Your task to perform on an android device: see sites visited before in the chrome app Image 0: 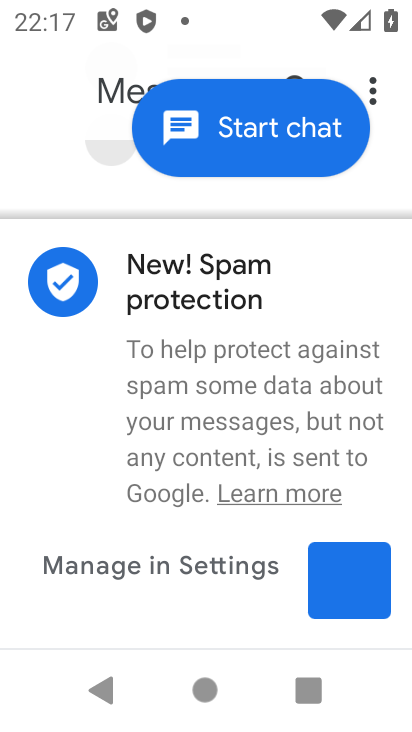
Step 0: press home button
Your task to perform on an android device: see sites visited before in the chrome app Image 1: 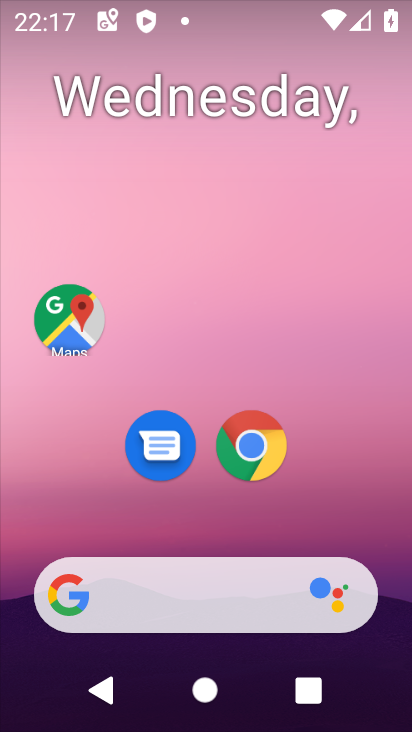
Step 1: click (244, 444)
Your task to perform on an android device: see sites visited before in the chrome app Image 2: 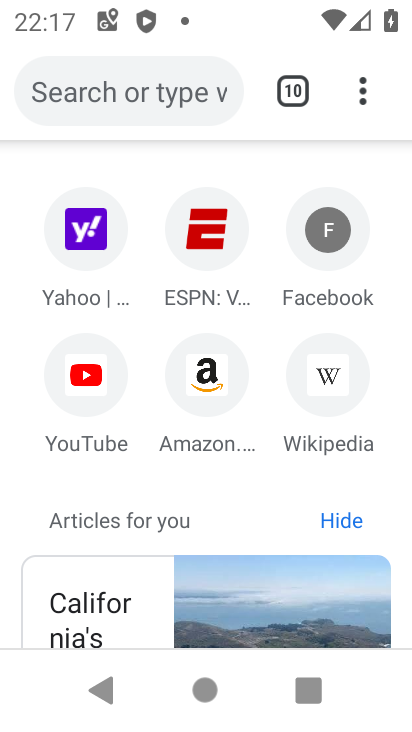
Step 2: click (368, 102)
Your task to perform on an android device: see sites visited before in the chrome app Image 3: 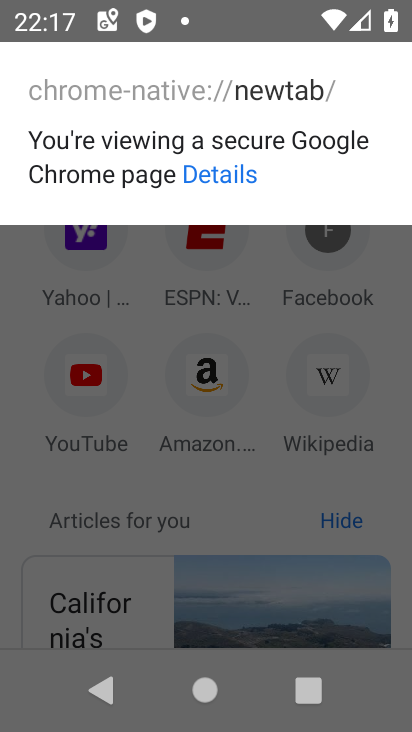
Step 3: press back button
Your task to perform on an android device: see sites visited before in the chrome app Image 4: 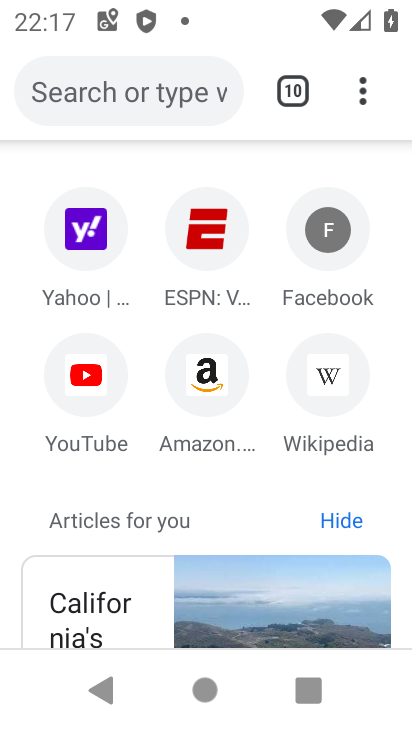
Step 4: click (393, 90)
Your task to perform on an android device: see sites visited before in the chrome app Image 5: 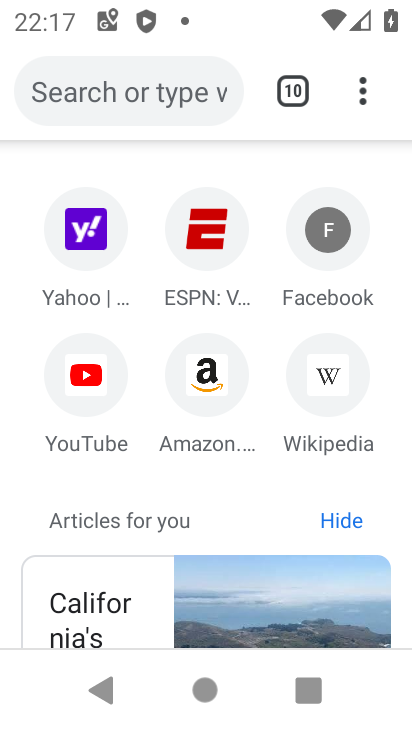
Step 5: click (372, 88)
Your task to perform on an android device: see sites visited before in the chrome app Image 6: 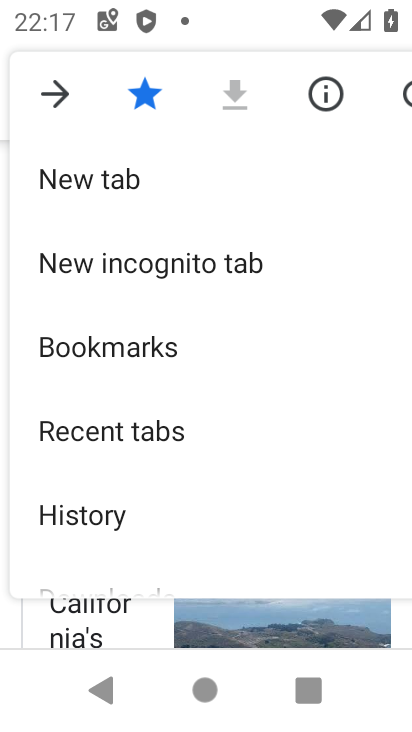
Step 6: click (96, 501)
Your task to perform on an android device: see sites visited before in the chrome app Image 7: 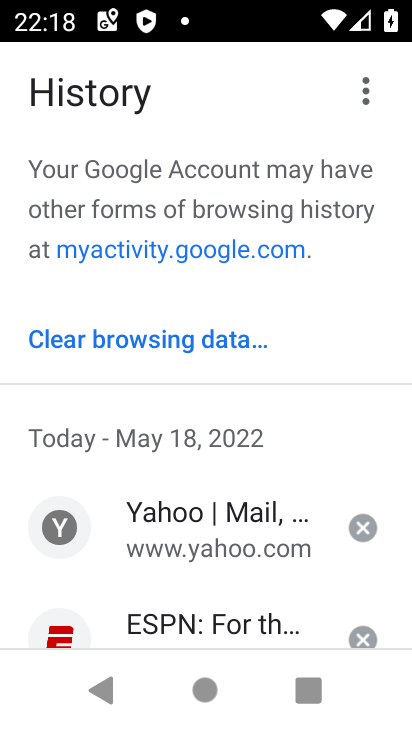
Step 7: task complete